Your task to perform on an android device: Open Chrome and go to the settings page Image 0: 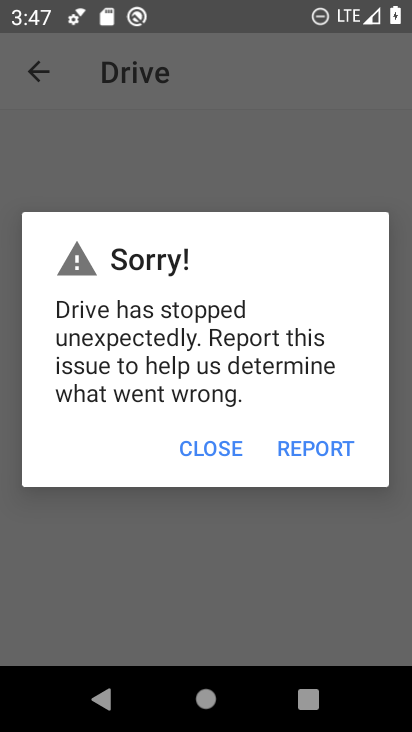
Step 0: drag from (315, 636) to (408, 146)
Your task to perform on an android device: Open Chrome and go to the settings page Image 1: 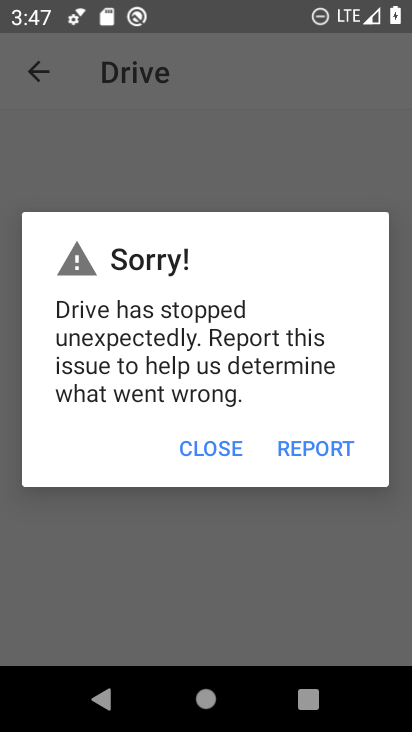
Step 1: press home button
Your task to perform on an android device: Open Chrome and go to the settings page Image 2: 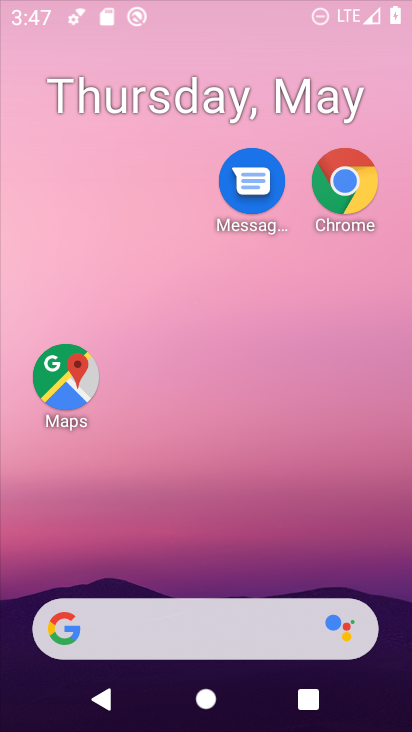
Step 2: drag from (305, 621) to (293, 0)
Your task to perform on an android device: Open Chrome and go to the settings page Image 3: 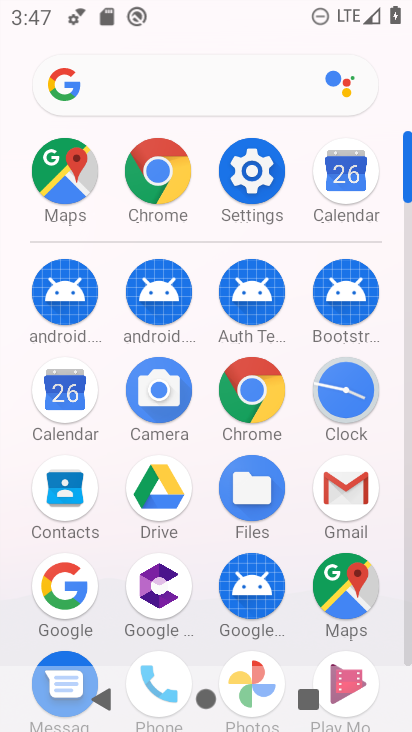
Step 3: click (236, 387)
Your task to perform on an android device: Open Chrome and go to the settings page Image 4: 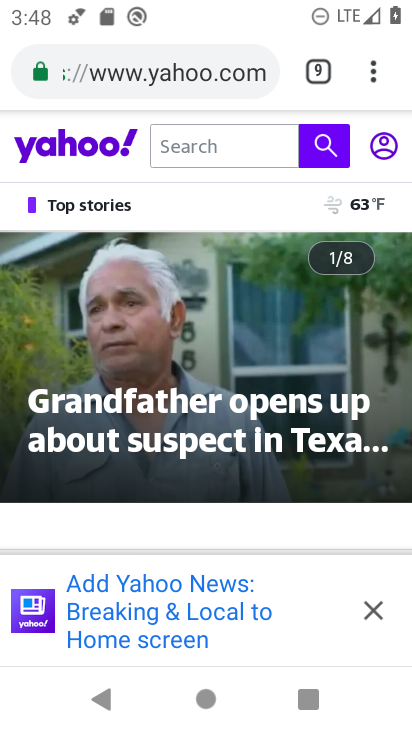
Step 4: click (370, 77)
Your task to perform on an android device: Open Chrome and go to the settings page Image 5: 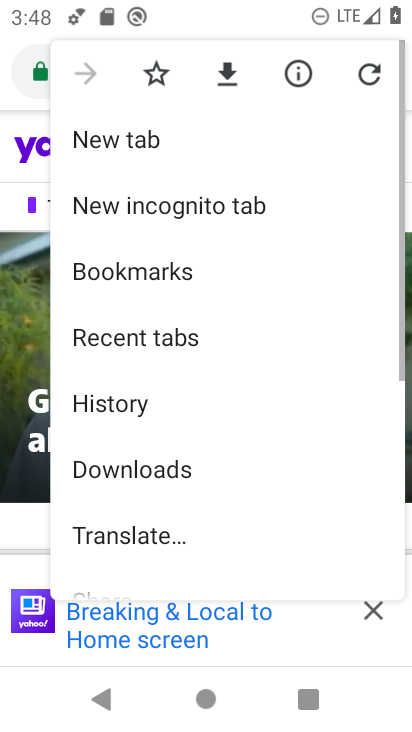
Step 5: drag from (221, 528) to (236, 79)
Your task to perform on an android device: Open Chrome and go to the settings page Image 6: 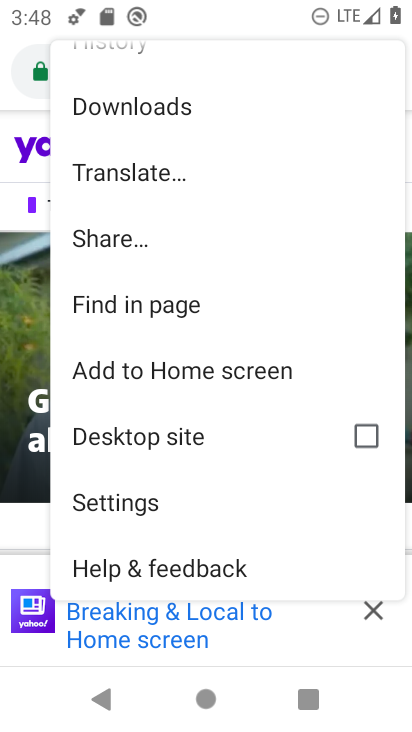
Step 6: click (152, 498)
Your task to perform on an android device: Open Chrome and go to the settings page Image 7: 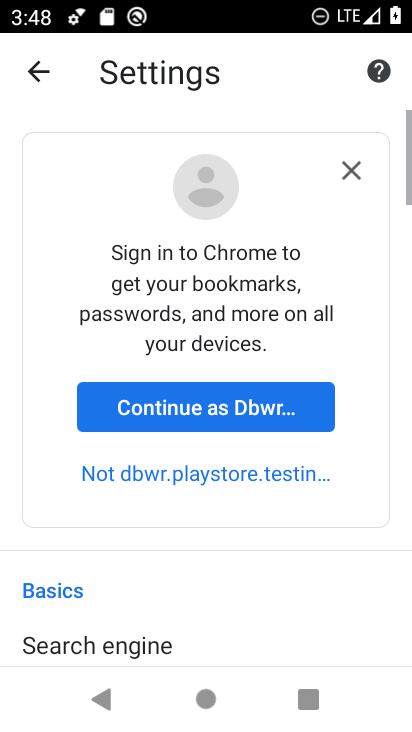
Step 7: task complete